Your task to perform on an android device: toggle javascript in the chrome app Image 0: 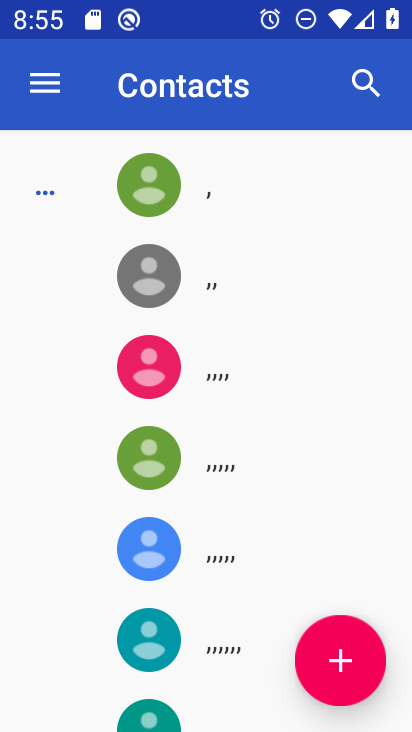
Step 0: press home button
Your task to perform on an android device: toggle javascript in the chrome app Image 1: 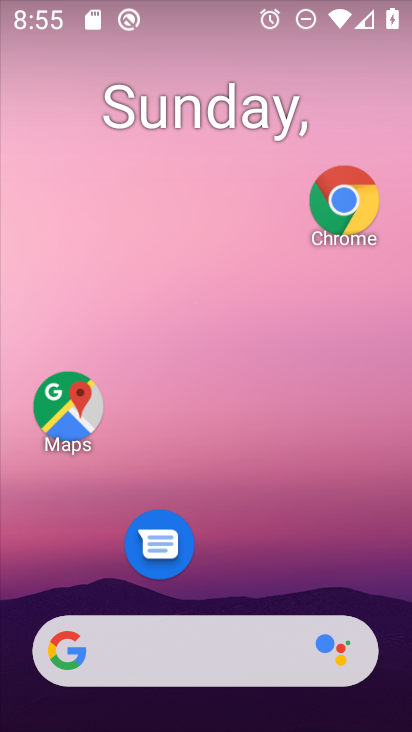
Step 1: click (342, 203)
Your task to perform on an android device: toggle javascript in the chrome app Image 2: 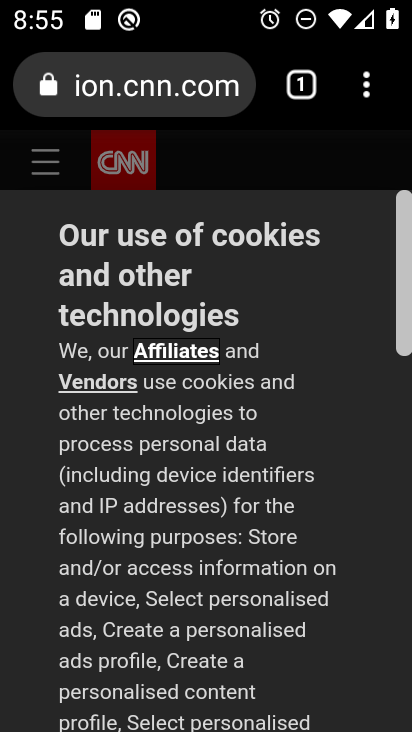
Step 2: click (364, 91)
Your task to perform on an android device: toggle javascript in the chrome app Image 3: 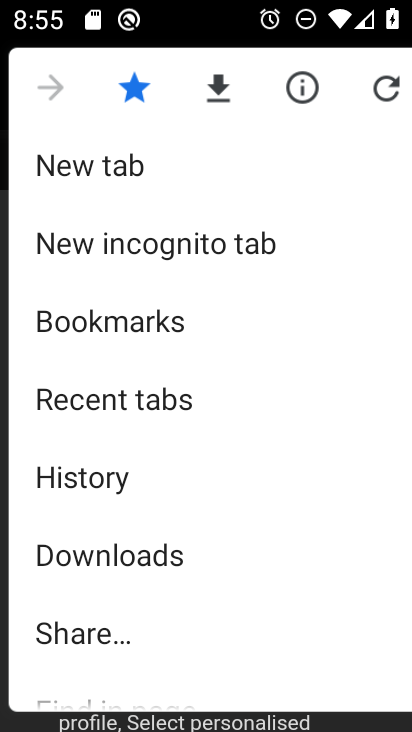
Step 3: drag from (244, 624) to (239, 297)
Your task to perform on an android device: toggle javascript in the chrome app Image 4: 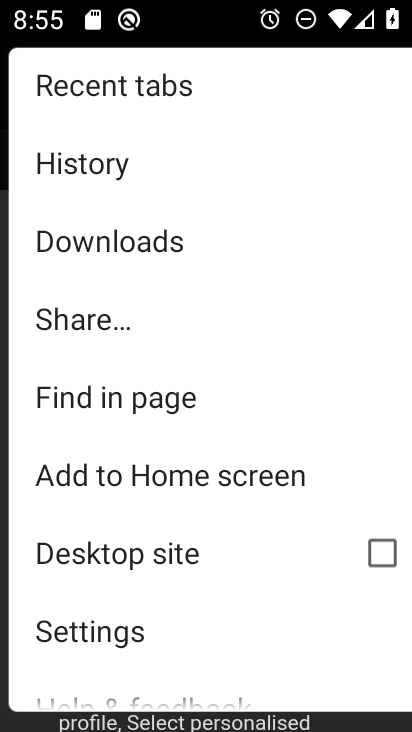
Step 4: click (211, 623)
Your task to perform on an android device: toggle javascript in the chrome app Image 5: 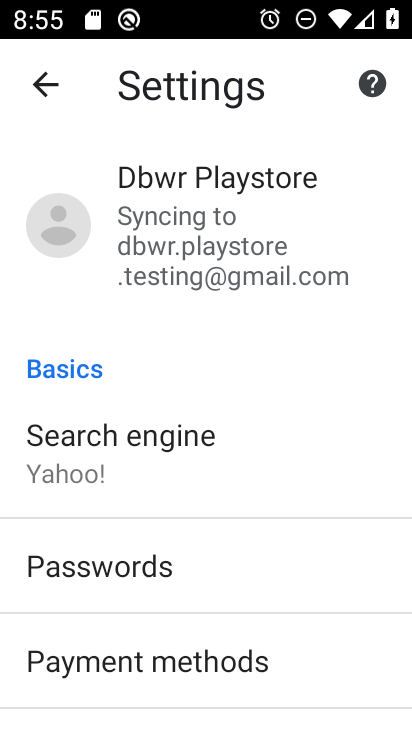
Step 5: drag from (148, 664) to (201, 308)
Your task to perform on an android device: toggle javascript in the chrome app Image 6: 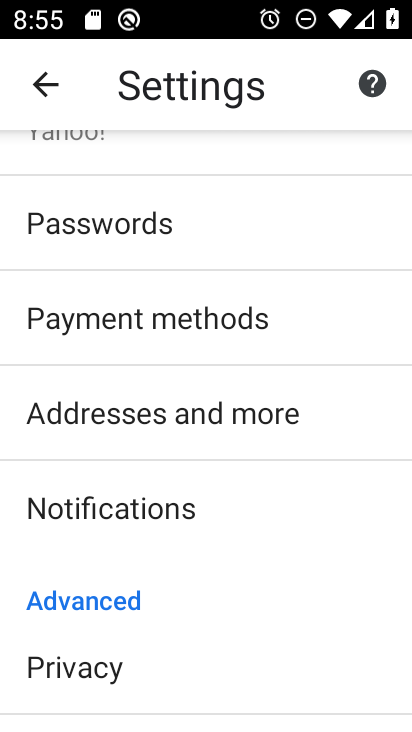
Step 6: drag from (196, 675) to (237, 422)
Your task to perform on an android device: toggle javascript in the chrome app Image 7: 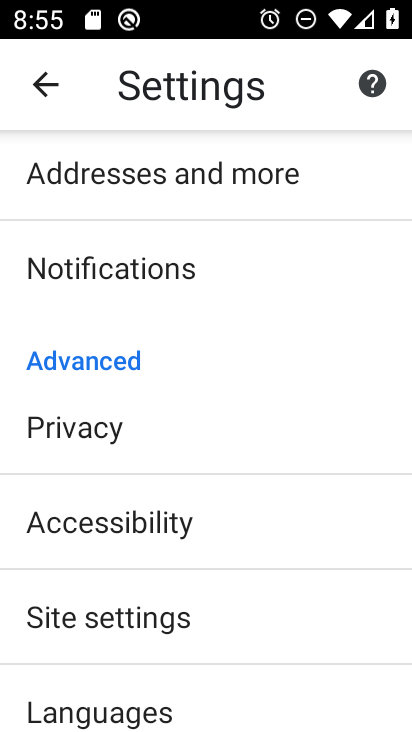
Step 7: click (237, 621)
Your task to perform on an android device: toggle javascript in the chrome app Image 8: 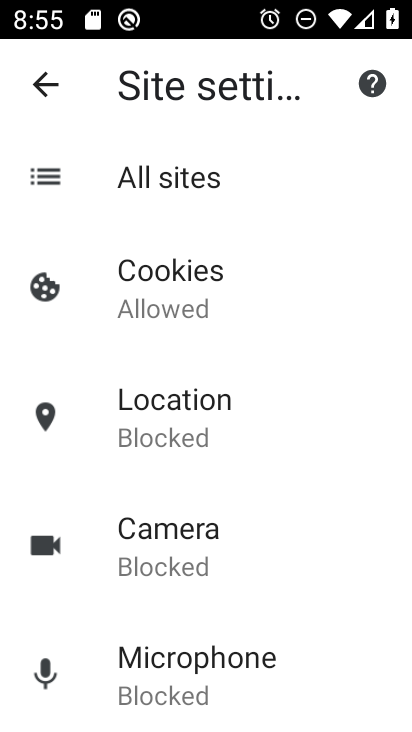
Step 8: drag from (242, 642) to (249, 455)
Your task to perform on an android device: toggle javascript in the chrome app Image 9: 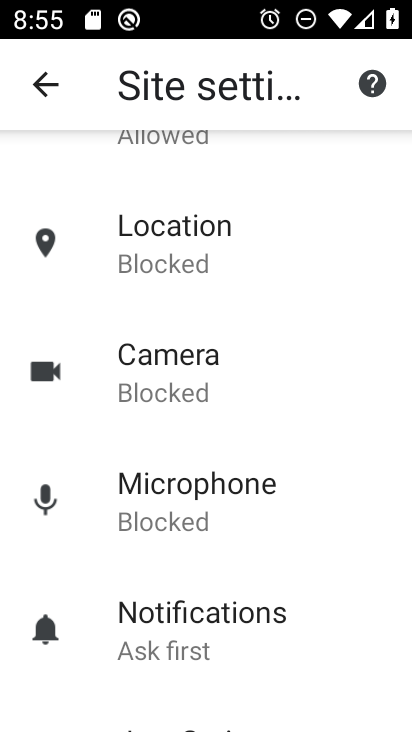
Step 9: drag from (205, 639) to (257, 343)
Your task to perform on an android device: toggle javascript in the chrome app Image 10: 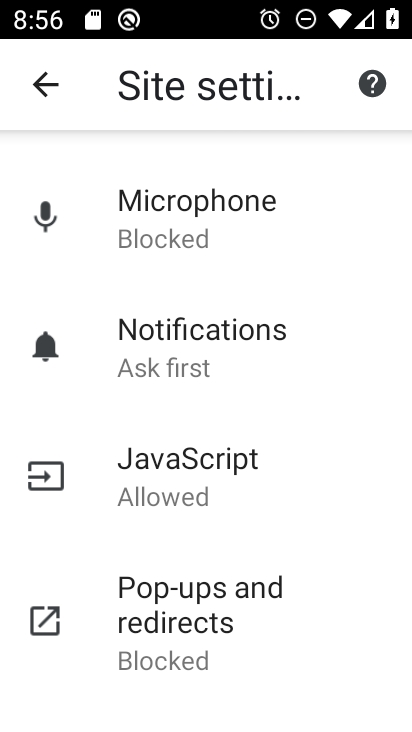
Step 10: click (236, 483)
Your task to perform on an android device: toggle javascript in the chrome app Image 11: 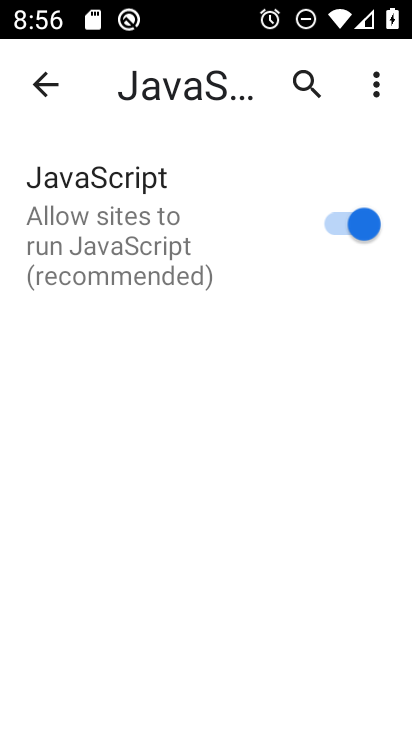
Step 11: click (360, 222)
Your task to perform on an android device: toggle javascript in the chrome app Image 12: 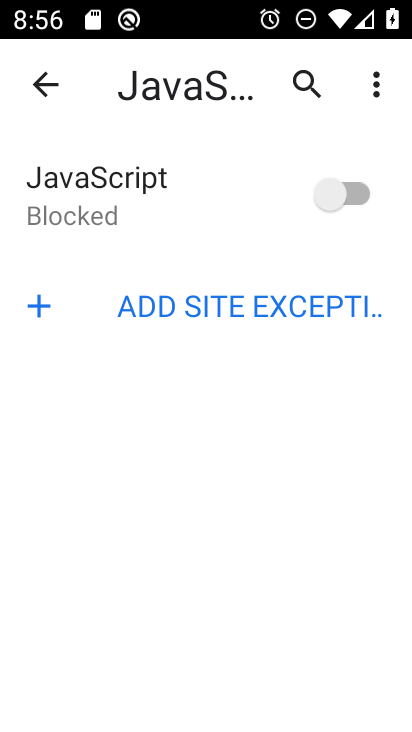
Step 12: task complete